Your task to perform on an android device: change the clock display to digital Image 0: 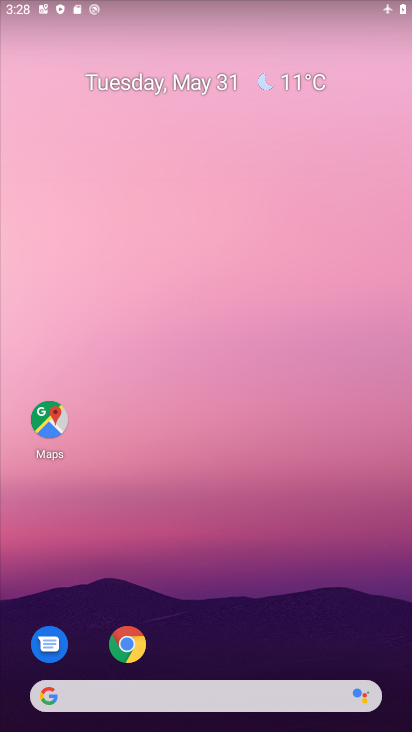
Step 0: drag from (253, 596) to (158, 188)
Your task to perform on an android device: change the clock display to digital Image 1: 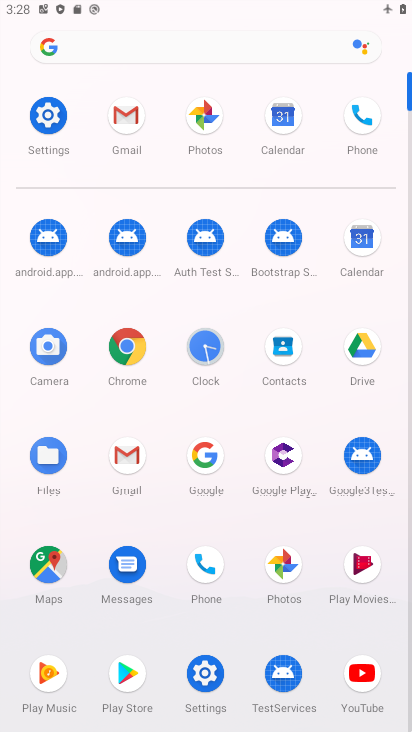
Step 1: click (48, 108)
Your task to perform on an android device: change the clock display to digital Image 2: 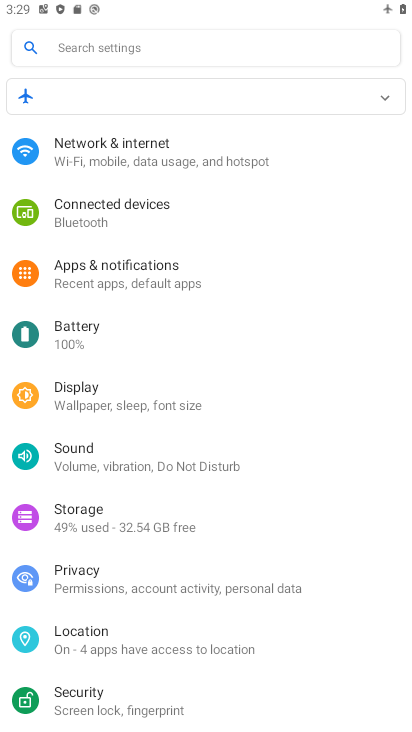
Step 2: press home button
Your task to perform on an android device: change the clock display to digital Image 3: 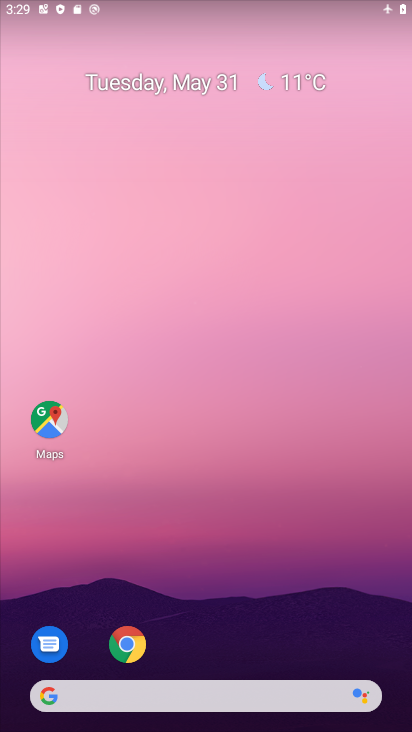
Step 3: drag from (255, 481) to (228, 234)
Your task to perform on an android device: change the clock display to digital Image 4: 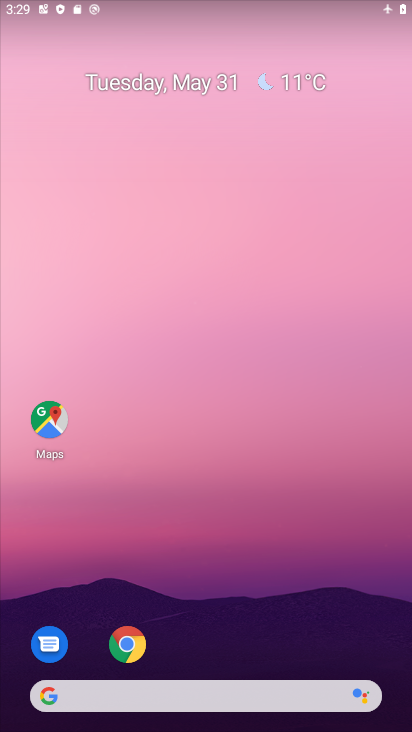
Step 4: drag from (232, 549) to (152, 94)
Your task to perform on an android device: change the clock display to digital Image 5: 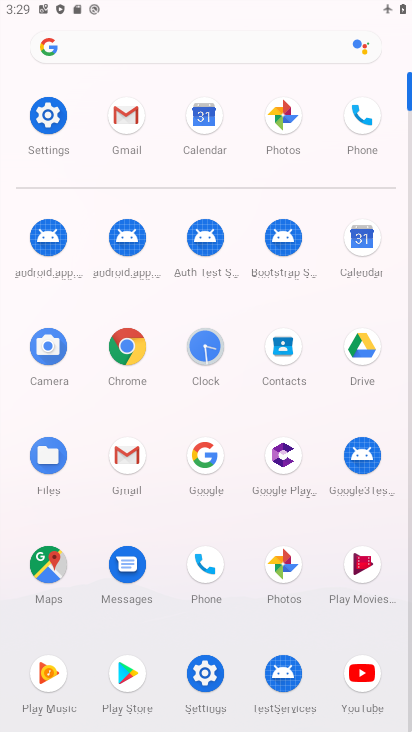
Step 5: click (203, 355)
Your task to perform on an android device: change the clock display to digital Image 6: 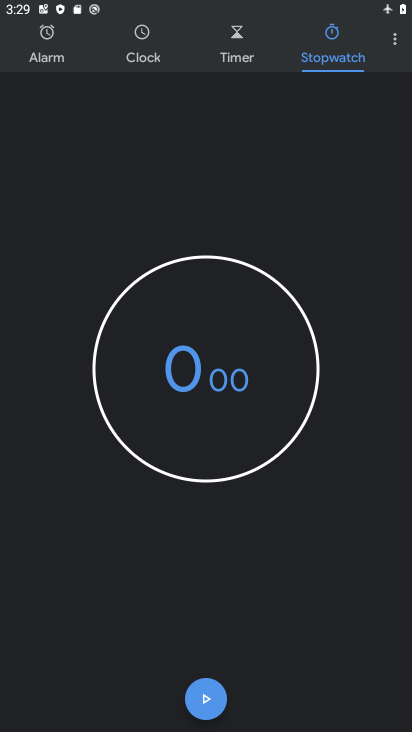
Step 6: click (377, 34)
Your task to perform on an android device: change the clock display to digital Image 7: 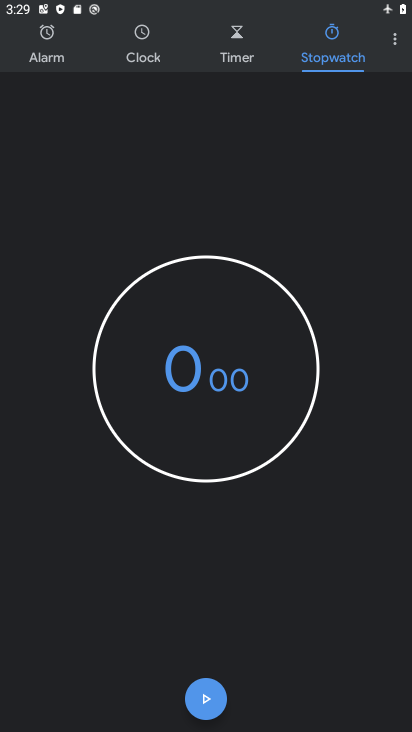
Step 7: click (377, 34)
Your task to perform on an android device: change the clock display to digital Image 8: 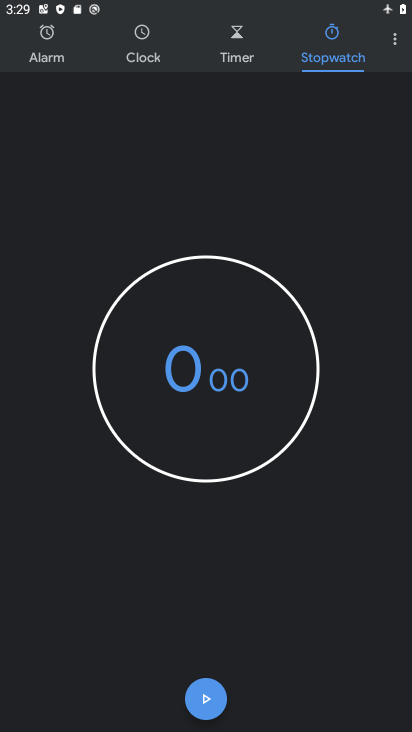
Step 8: click (405, 44)
Your task to perform on an android device: change the clock display to digital Image 9: 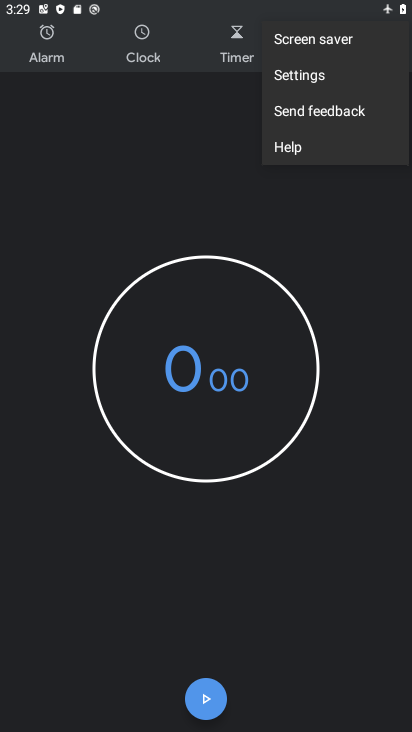
Step 9: click (326, 76)
Your task to perform on an android device: change the clock display to digital Image 10: 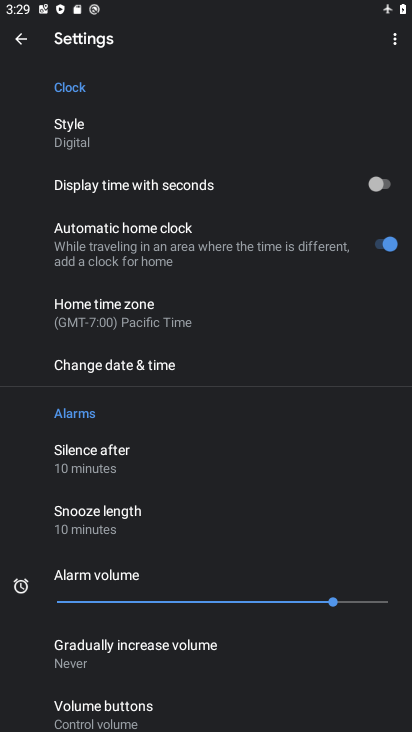
Step 10: click (112, 126)
Your task to perform on an android device: change the clock display to digital Image 11: 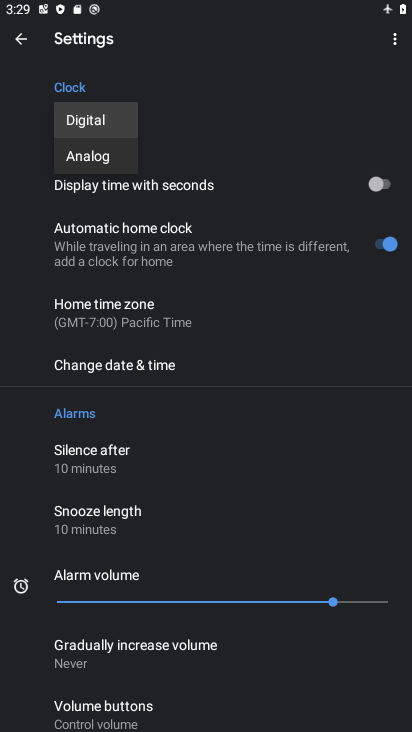
Step 11: click (116, 119)
Your task to perform on an android device: change the clock display to digital Image 12: 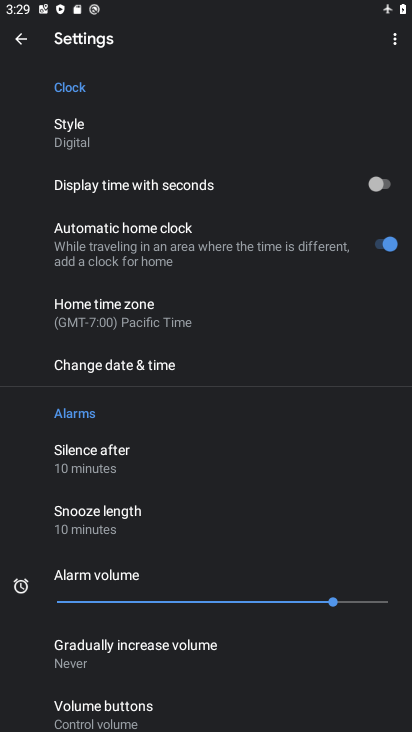
Step 12: task complete